Your task to perform on an android device: Open Google Maps and go to "Timeline" Image 0: 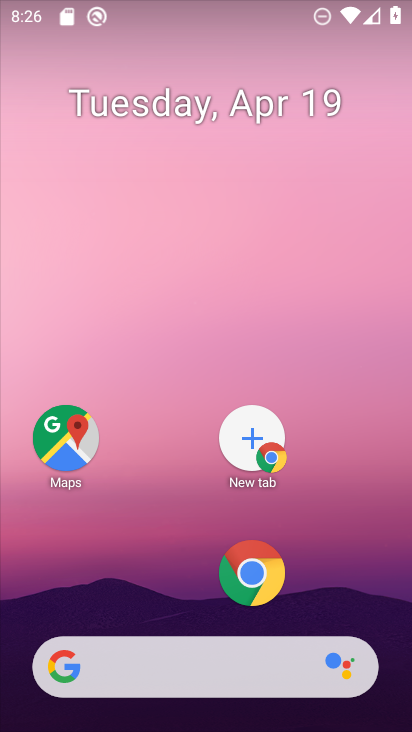
Step 0: click (67, 425)
Your task to perform on an android device: Open Google Maps and go to "Timeline" Image 1: 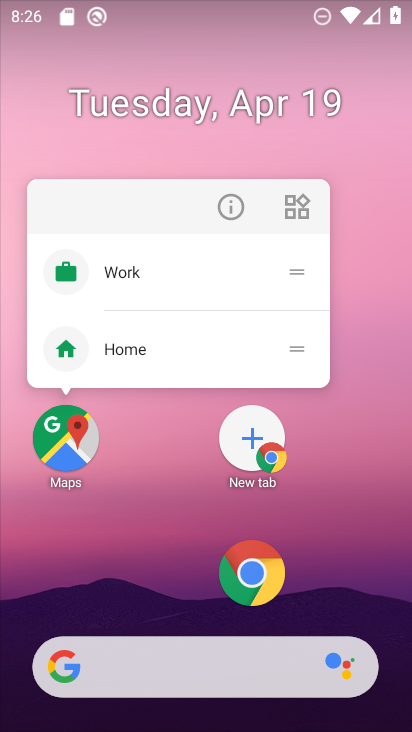
Step 1: click (232, 353)
Your task to perform on an android device: Open Google Maps and go to "Timeline" Image 2: 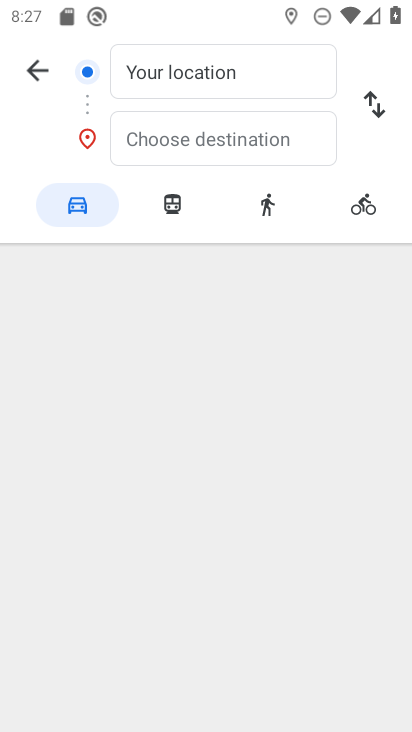
Step 2: click (44, 70)
Your task to perform on an android device: Open Google Maps and go to "Timeline" Image 3: 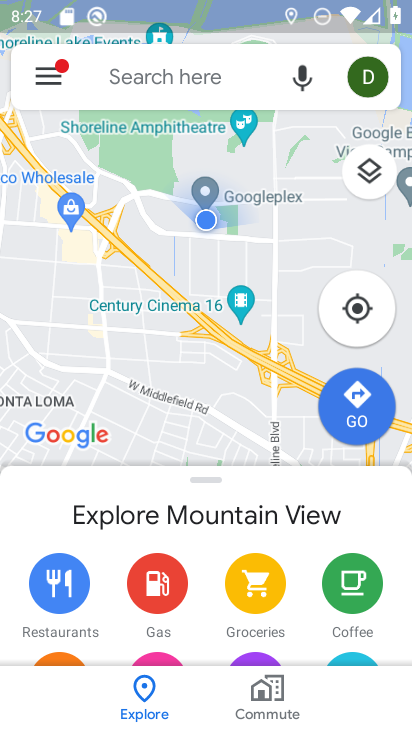
Step 3: click (56, 87)
Your task to perform on an android device: Open Google Maps and go to "Timeline" Image 4: 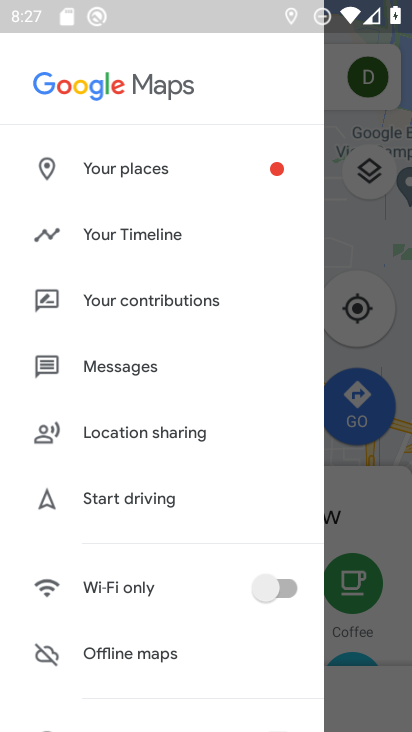
Step 4: click (124, 242)
Your task to perform on an android device: Open Google Maps and go to "Timeline" Image 5: 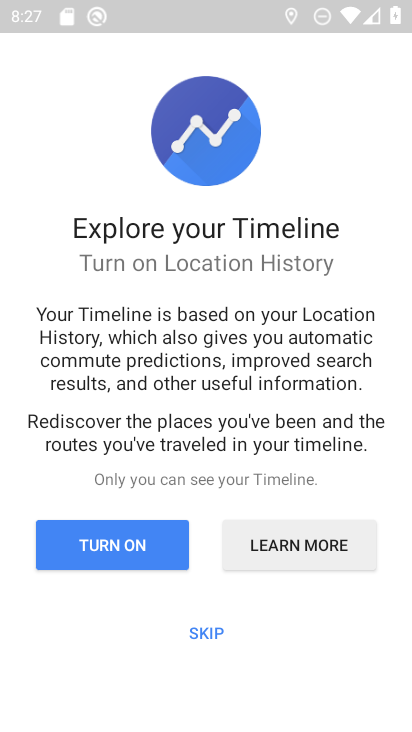
Step 5: click (139, 538)
Your task to perform on an android device: Open Google Maps and go to "Timeline" Image 6: 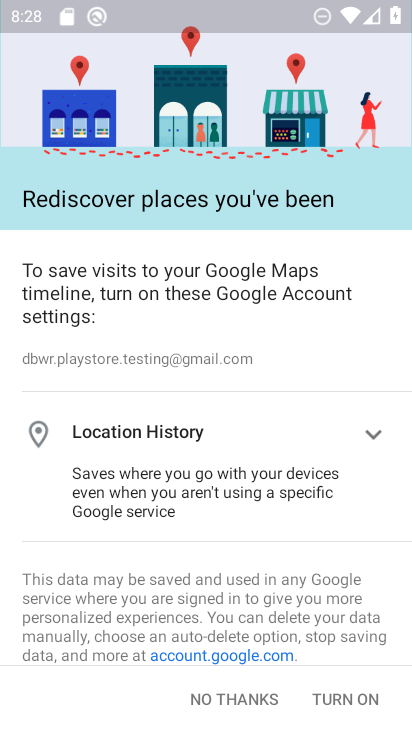
Step 6: click (319, 705)
Your task to perform on an android device: Open Google Maps and go to "Timeline" Image 7: 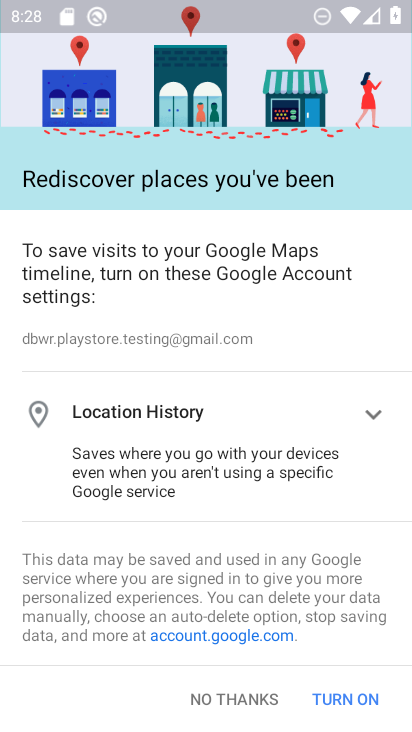
Step 7: click (319, 705)
Your task to perform on an android device: Open Google Maps and go to "Timeline" Image 8: 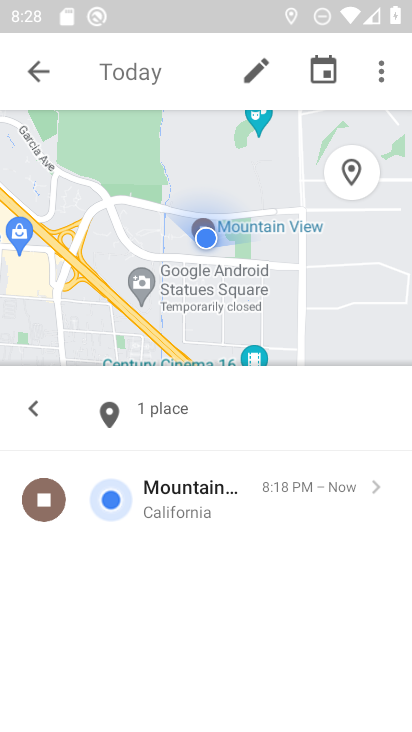
Step 8: task complete